Your task to perform on an android device: What's the weather today? Image 0: 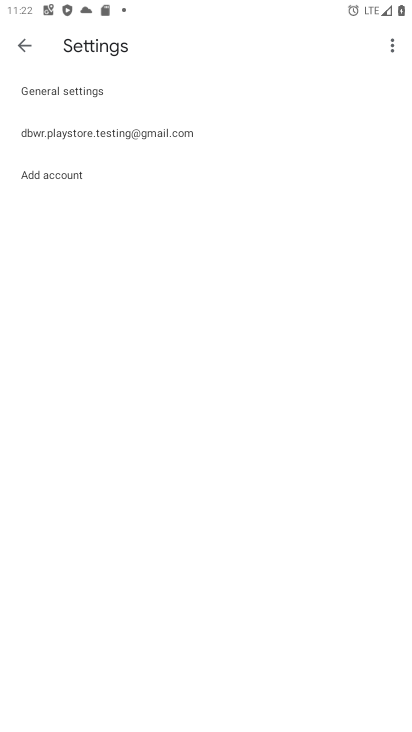
Step 0: press home button
Your task to perform on an android device: What's the weather today? Image 1: 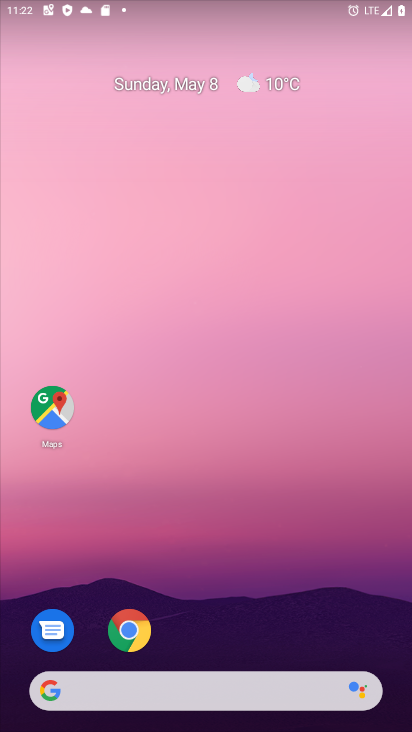
Step 1: click (174, 683)
Your task to perform on an android device: What's the weather today? Image 2: 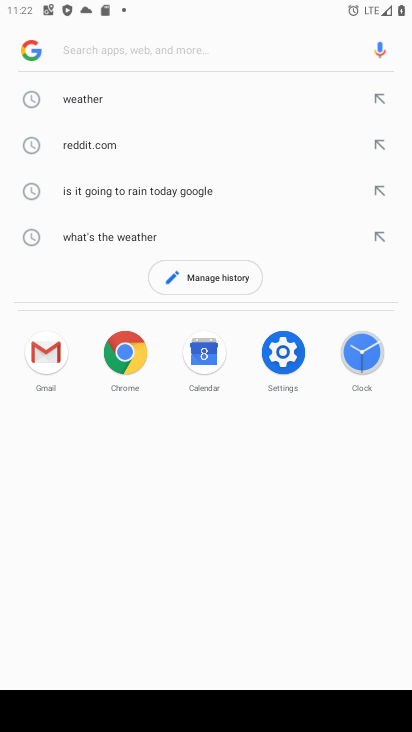
Step 2: click (209, 83)
Your task to perform on an android device: What's the weather today? Image 3: 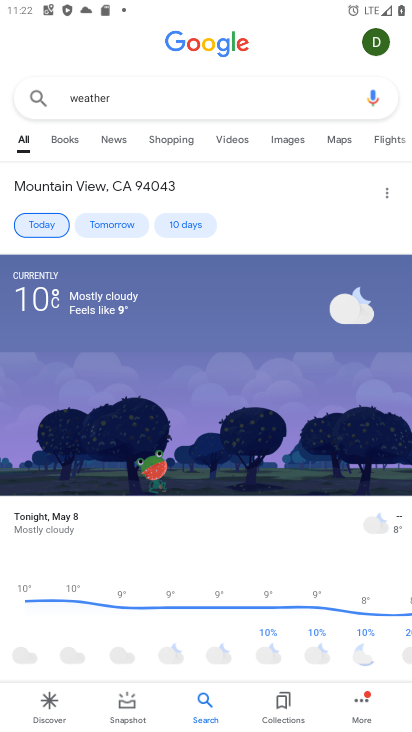
Step 3: task complete